Your task to perform on an android device: allow notifications from all sites in the chrome app Image 0: 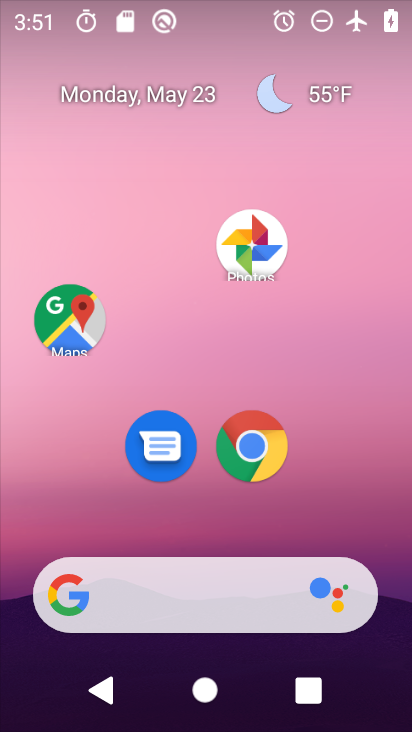
Step 0: click (239, 458)
Your task to perform on an android device: allow notifications from all sites in the chrome app Image 1: 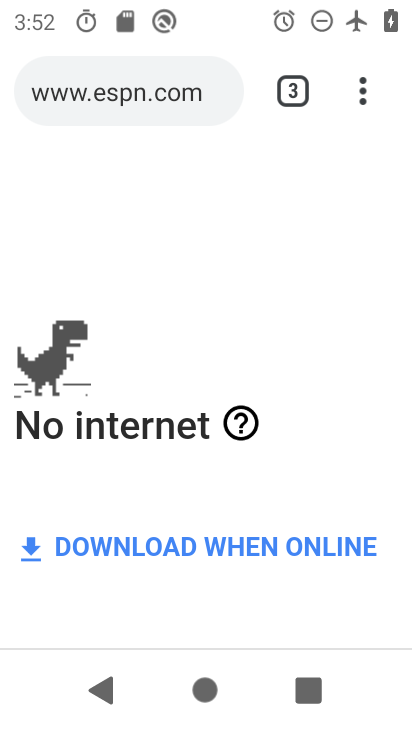
Step 1: click (368, 80)
Your task to perform on an android device: allow notifications from all sites in the chrome app Image 2: 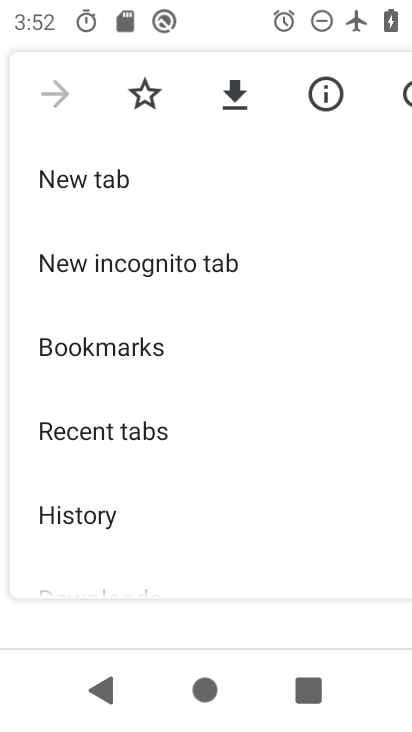
Step 2: drag from (190, 463) to (166, 223)
Your task to perform on an android device: allow notifications from all sites in the chrome app Image 3: 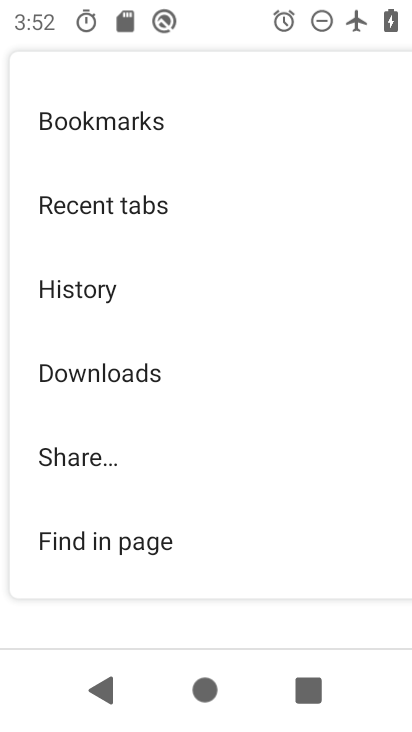
Step 3: drag from (144, 463) to (152, 258)
Your task to perform on an android device: allow notifications from all sites in the chrome app Image 4: 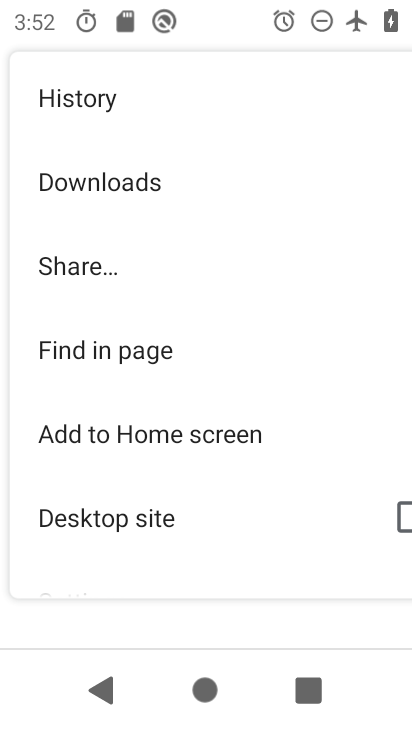
Step 4: drag from (156, 483) to (172, 223)
Your task to perform on an android device: allow notifications from all sites in the chrome app Image 5: 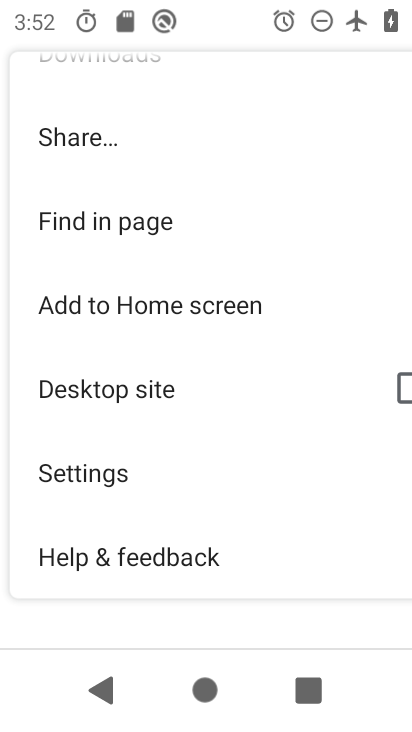
Step 5: click (123, 468)
Your task to perform on an android device: allow notifications from all sites in the chrome app Image 6: 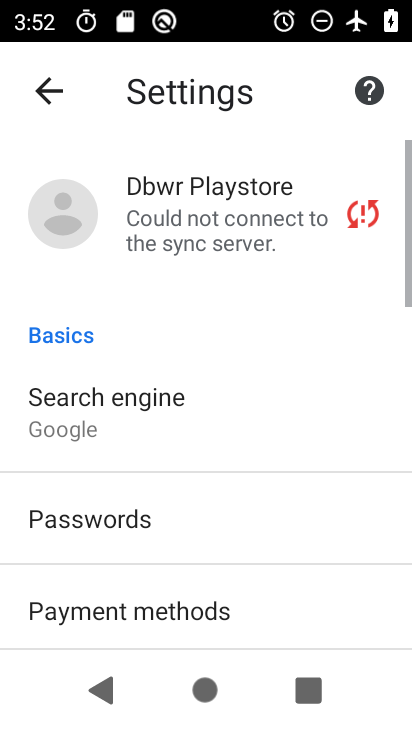
Step 6: drag from (122, 469) to (158, 203)
Your task to perform on an android device: allow notifications from all sites in the chrome app Image 7: 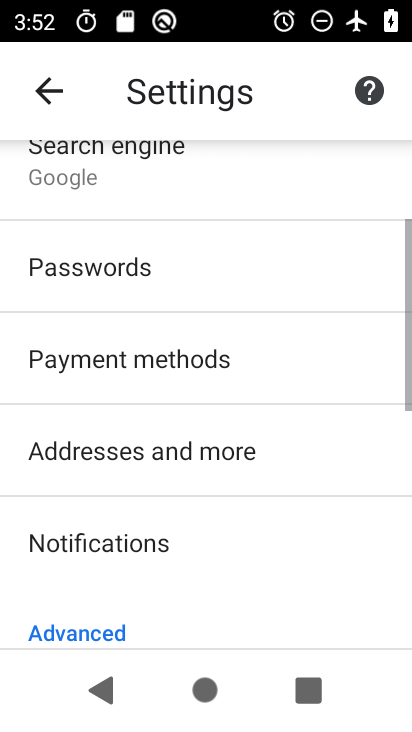
Step 7: drag from (193, 472) to (205, 214)
Your task to perform on an android device: allow notifications from all sites in the chrome app Image 8: 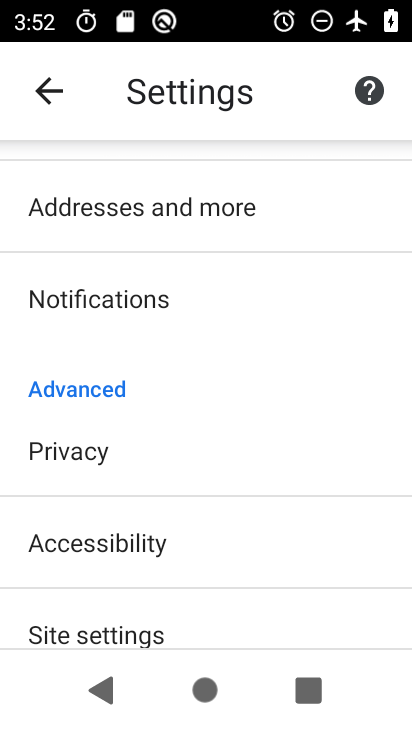
Step 8: drag from (200, 435) to (187, 255)
Your task to perform on an android device: allow notifications from all sites in the chrome app Image 9: 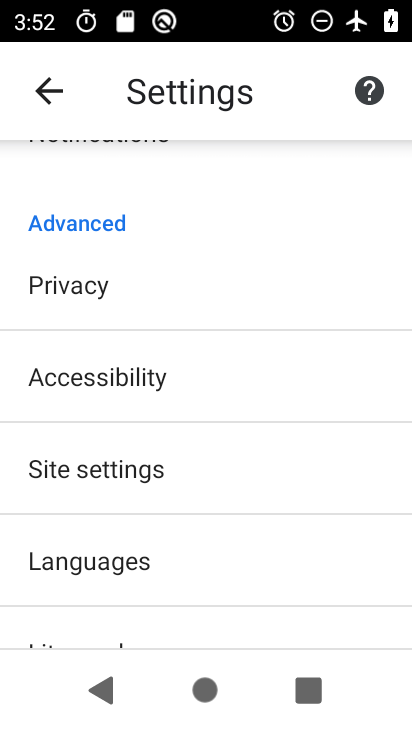
Step 9: click (184, 471)
Your task to perform on an android device: allow notifications from all sites in the chrome app Image 10: 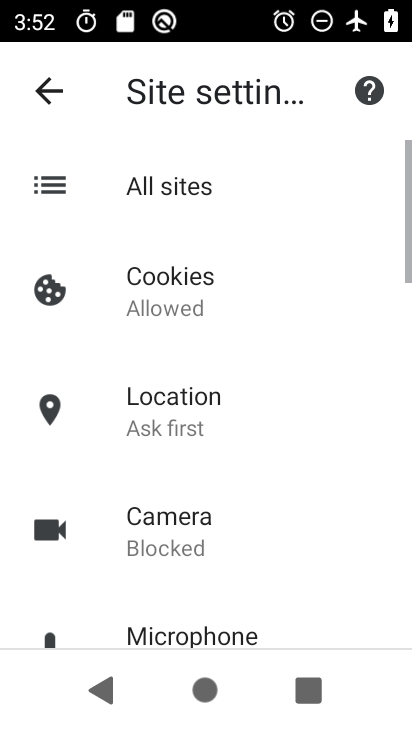
Step 10: click (182, 203)
Your task to perform on an android device: allow notifications from all sites in the chrome app Image 11: 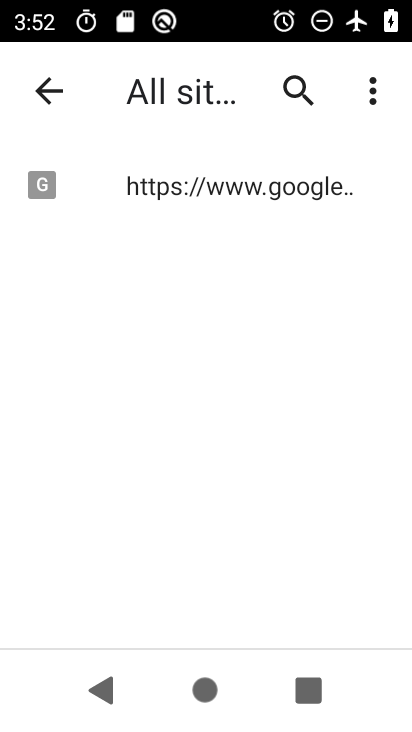
Step 11: click (182, 203)
Your task to perform on an android device: allow notifications from all sites in the chrome app Image 12: 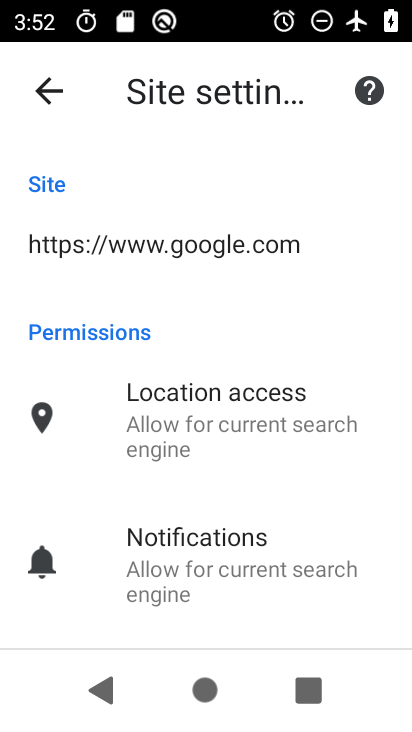
Step 12: click (213, 542)
Your task to perform on an android device: allow notifications from all sites in the chrome app Image 13: 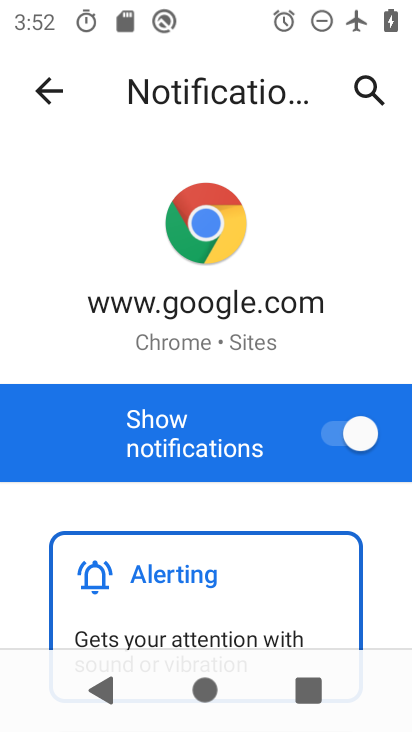
Step 13: task complete